Your task to perform on an android device: Open Youtube and go to "Your channel" Image 0: 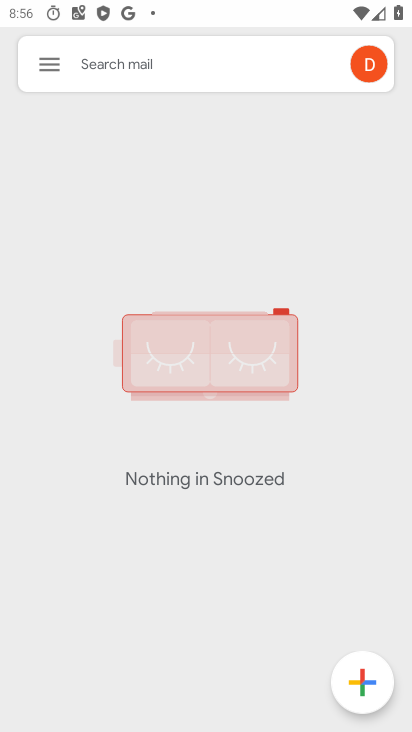
Step 0: press home button
Your task to perform on an android device: Open Youtube and go to "Your channel" Image 1: 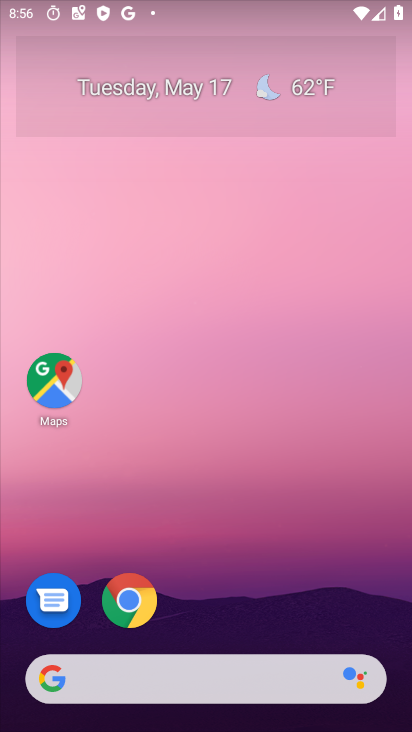
Step 1: drag from (181, 638) to (181, 121)
Your task to perform on an android device: Open Youtube and go to "Your channel" Image 2: 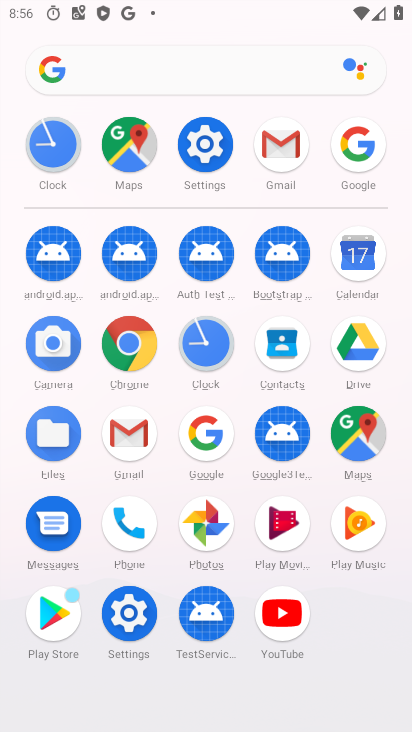
Step 2: click (281, 605)
Your task to perform on an android device: Open Youtube and go to "Your channel" Image 3: 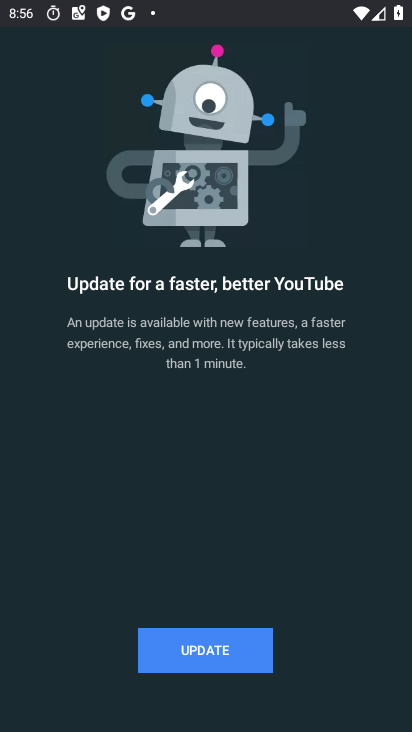
Step 3: task complete